Your task to perform on an android device: Open Google Chrome and open the bookmarks view Image 0: 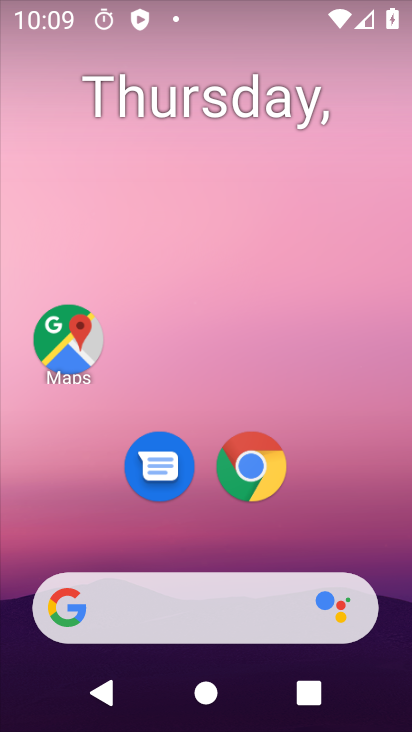
Step 0: drag from (166, 613) to (294, 170)
Your task to perform on an android device: Open Google Chrome and open the bookmarks view Image 1: 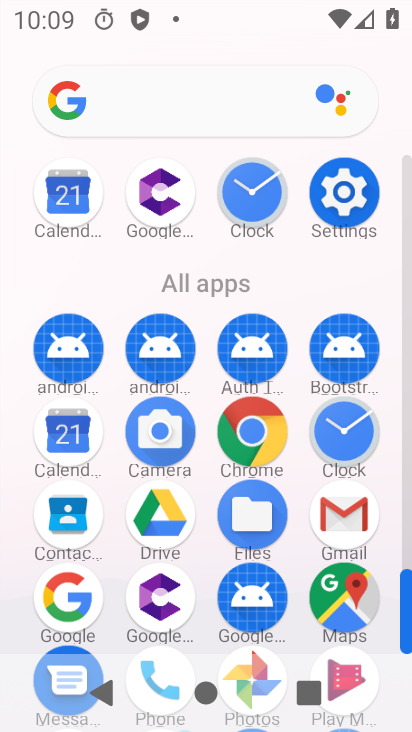
Step 1: click (256, 443)
Your task to perform on an android device: Open Google Chrome and open the bookmarks view Image 2: 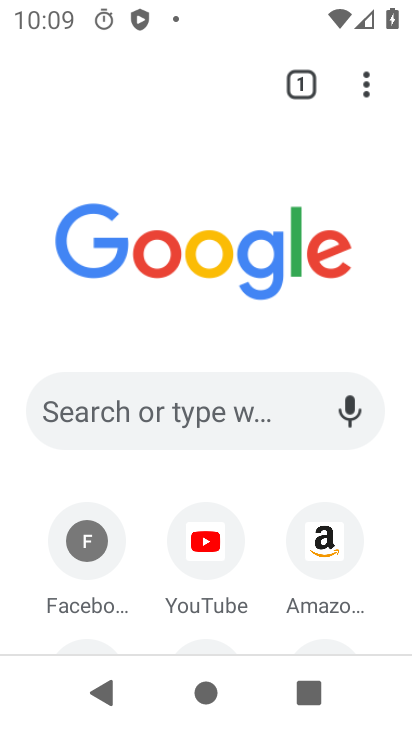
Step 2: click (357, 96)
Your task to perform on an android device: Open Google Chrome and open the bookmarks view Image 3: 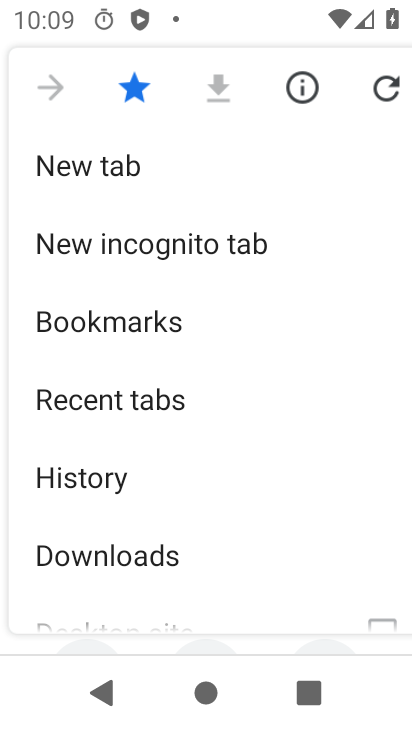
Step 3: click (104, 331)
Your task to perform on an android device: Open Google Chrome and open the bookmarks view Image 4: 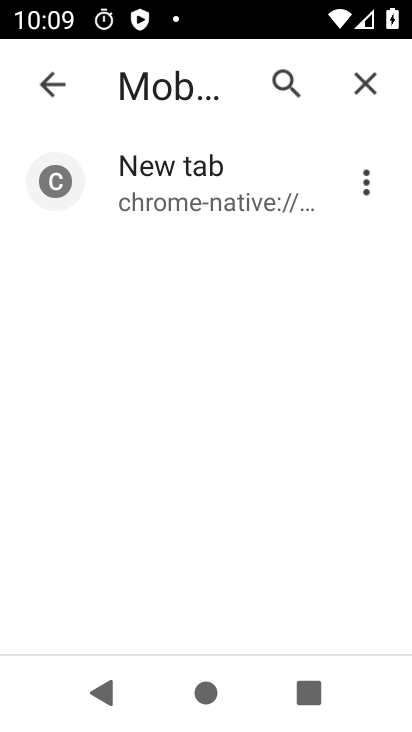
Step 4: task complete